Your task to perform on an android device: find which apps use the phone's location Image 0: 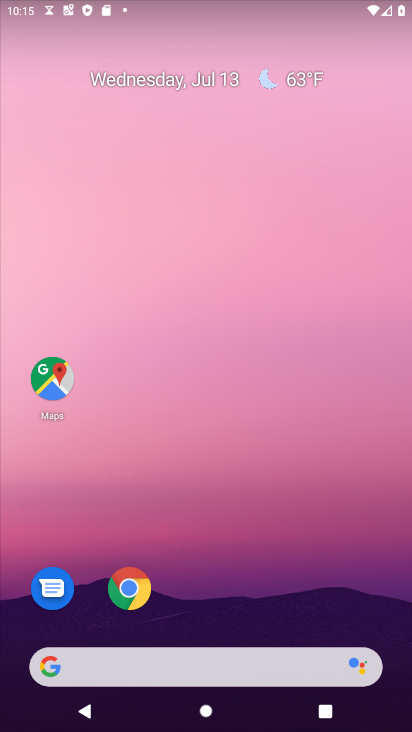
Step 0: drag from (29, 572) to (263, 96)
Your task to perform on an android device: find which apps use the phone's location Image 1: 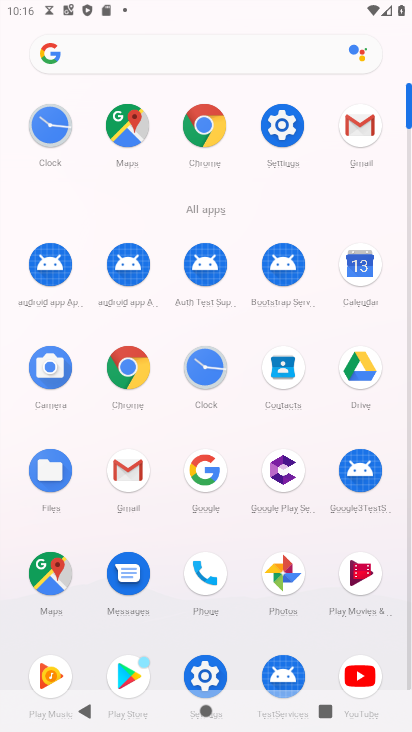
Step 1: click (280, 137)
Your task to perform on an android device: find which apps use the phone's location Image 2: 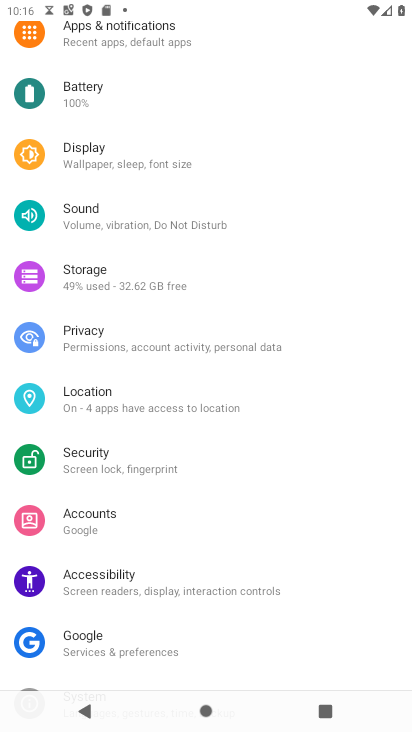
Step 2: click (122, 407)
Your task to perform on an android device: find which apps use the phone's location Image 3: 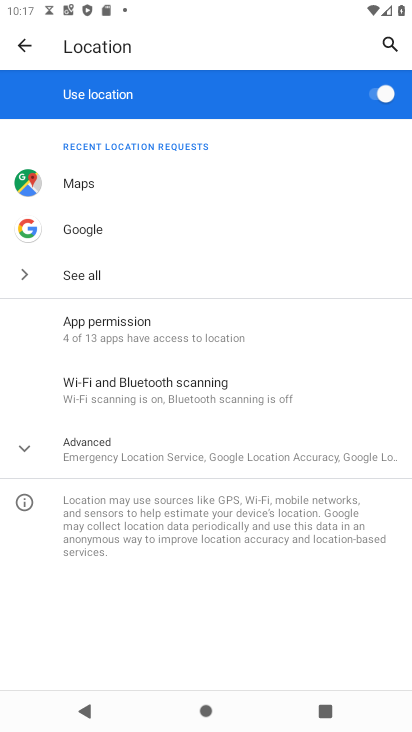
Step 3: click (205, 320)
Your task to perform on an android device: find which apps use the phone's location Image 4: 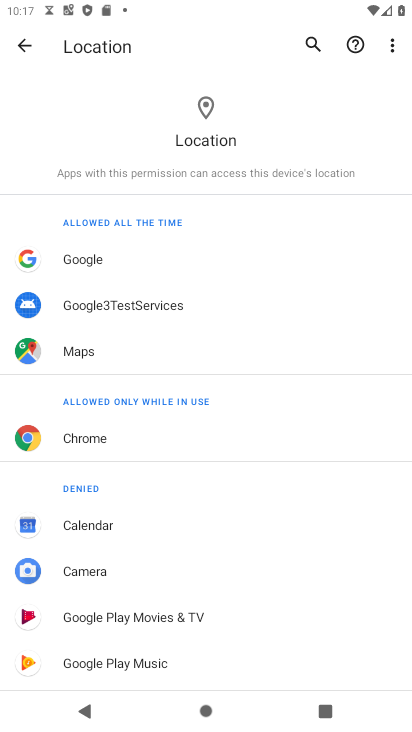
Step 4: task complete